Your task to perform on an android device: toggle wifi Image 0: 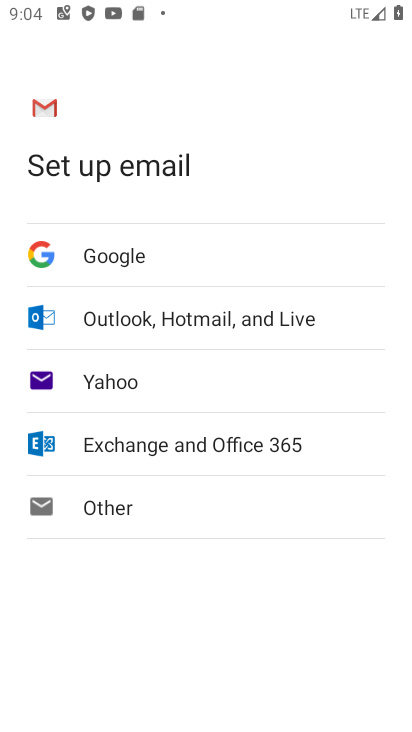
Step 0: press home button
Your task to perform on an android device: toggle wifi Image 1: 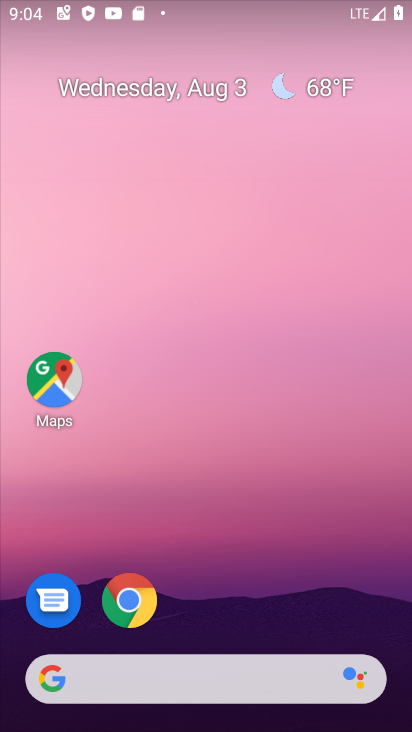
Step 1: drag from (195, 530) to (184, 72)
Your task to perform on an android device: toggle wifi Image 2: 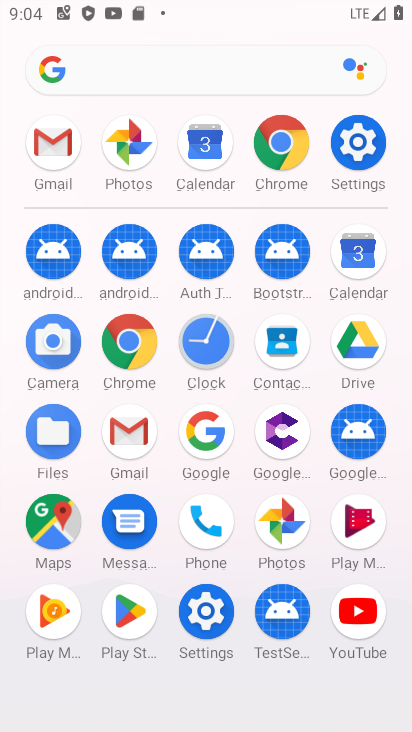
Step 2: click (362, 162)
Your task to perform on an android device: toggle wifi Image 3: 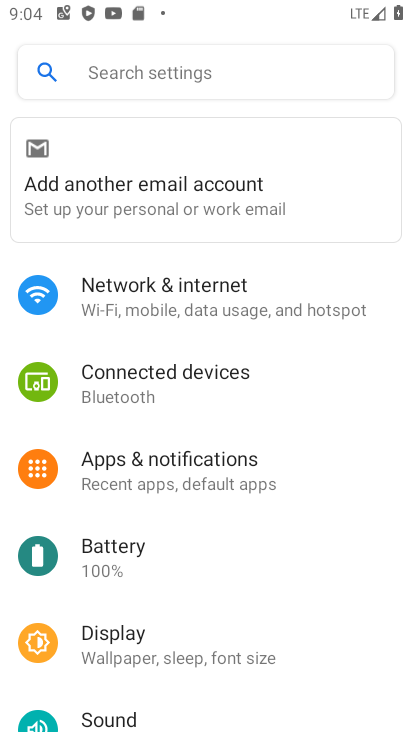
Step 3: click (184, 306)
Your task to perform on an android device: toggle wifi Image 4: 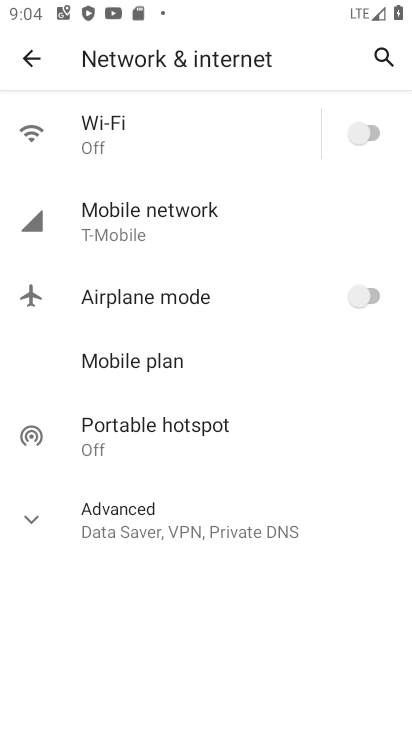
Step 4: click (378, 118)
Your task to perform on an android device: toggle wifi Image 5: 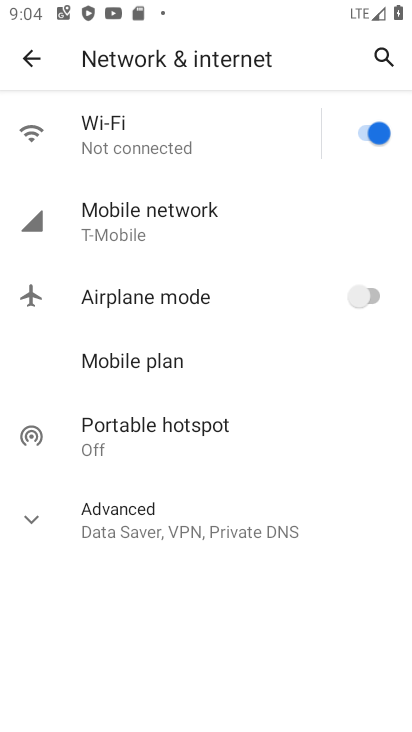
Step 5: task complete